Your task to perform on an android device: Search for Italian restaurants on Maps Image 0: 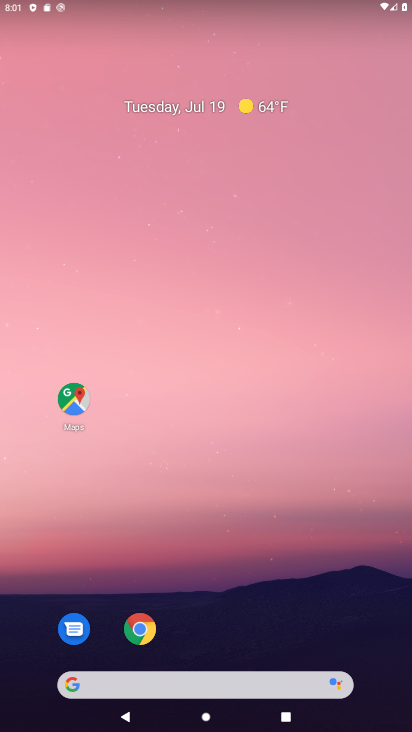
Step 0: drag from (189, 621) to (314, 12)
Your task to perform on an android device: Search for Italian restaurants on Maps Image 1: 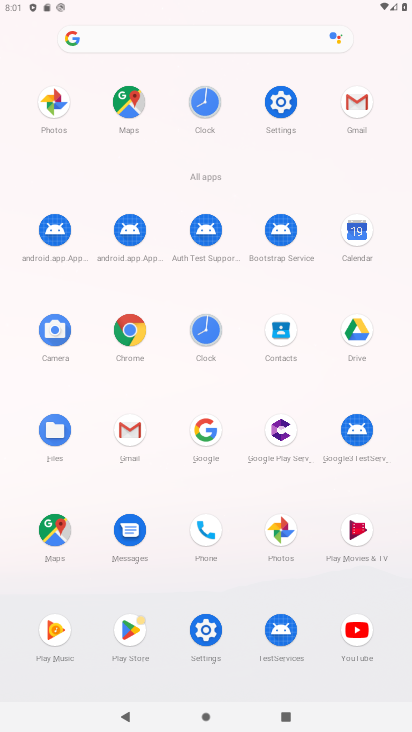
Step 1: click (30, 517)
Your task to perform on an android device: Search for Italian restaurants on Maps Image 2: 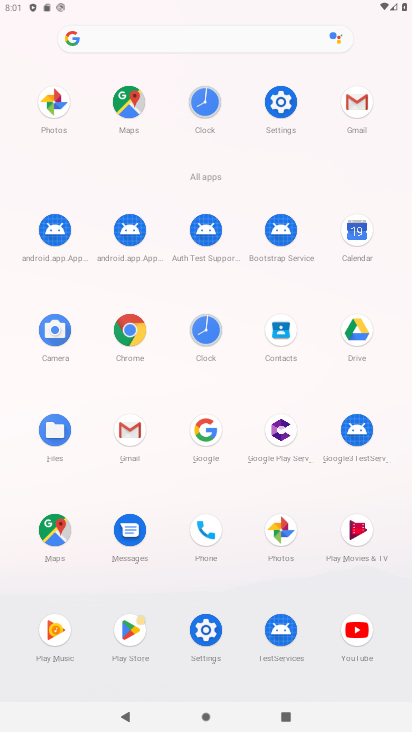
Step 2: click (30, 517)
Your task to perform on an android device: Search for Italian restaurants on Maps Image 3: 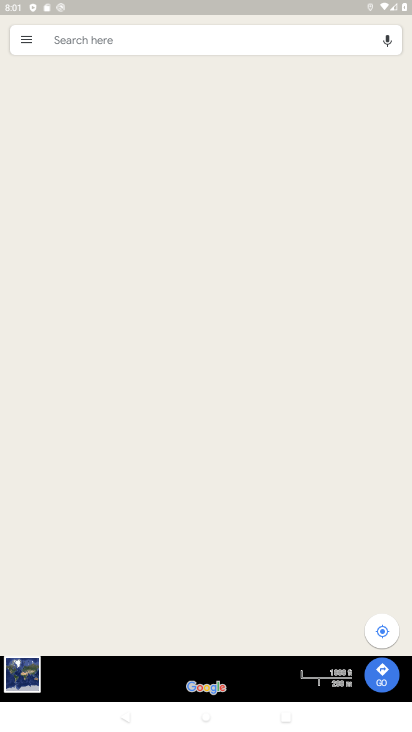
Step 3: drag from (193, 644) to (231, 279)
Your task to perform on an android device: Search for Italian restaurants on Maps Image 4: 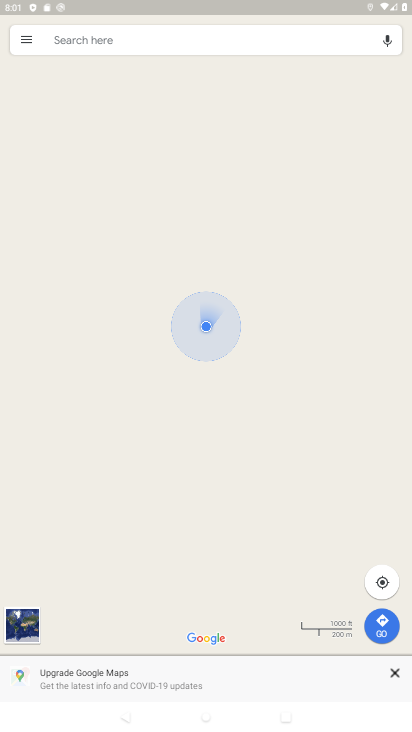
Step 4: click (113, 45)
Your task to perform on an android device: Search for Italian restaurants on Maps Image 5: 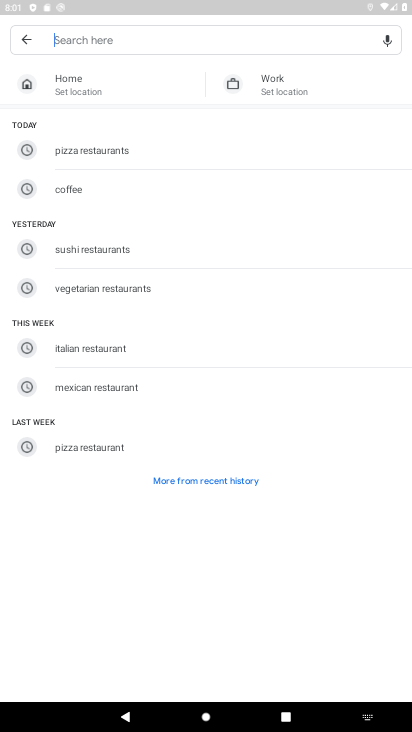
Step 5: click (79, 343)
Your task to perform on an android device: Search for Italian restaurants on Maps Image 6: 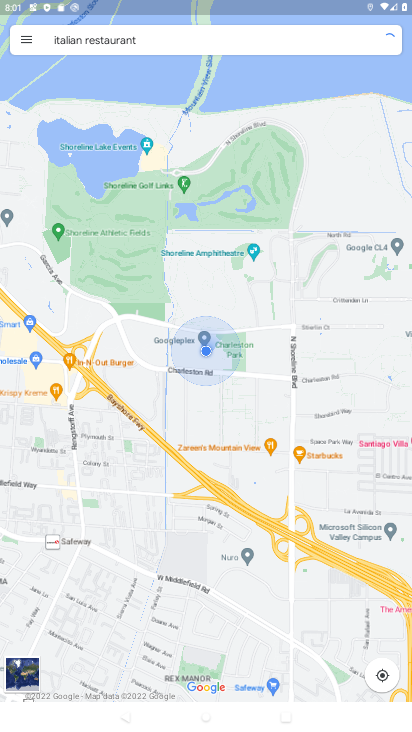
Step 6: task complete